Your task to perform on an android device: turn on location history Image 0: 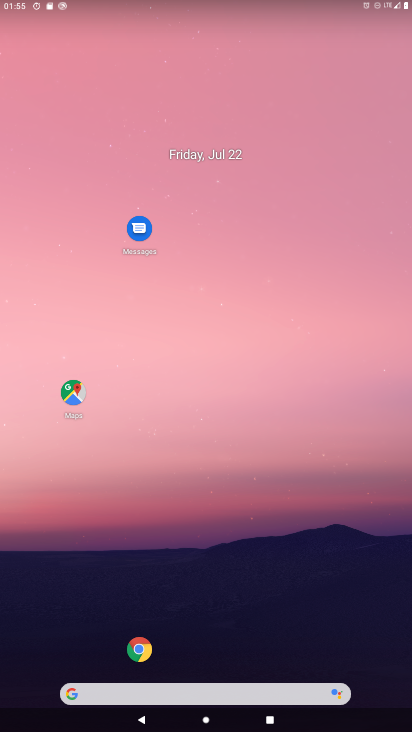
Step 0: drag from (70, 606) to (222, 204)
Your task to perform on an android device: turn on location history Image 1: 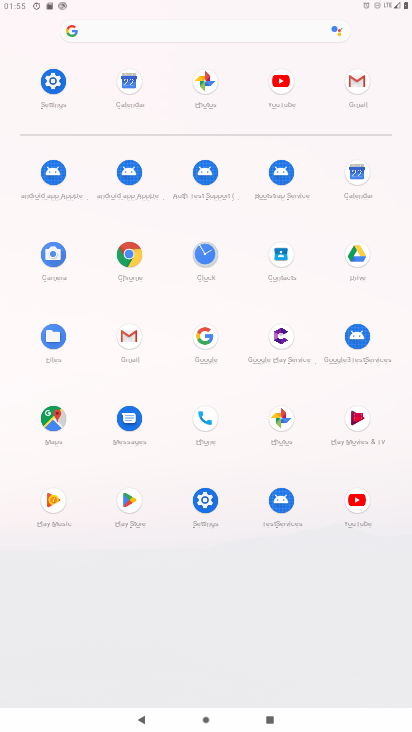
Step 1: click (126, 263)
Your task to perform on an android device: turn on location history Image 2: 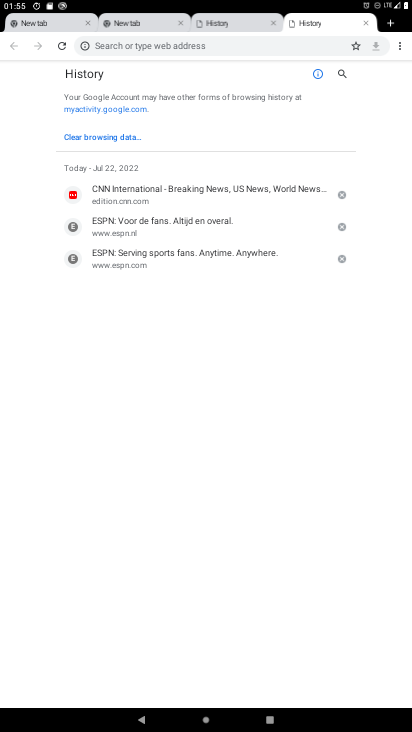
Step 2: click (405, 45)
Your task to perform on an android device: turn on location history Image 3: 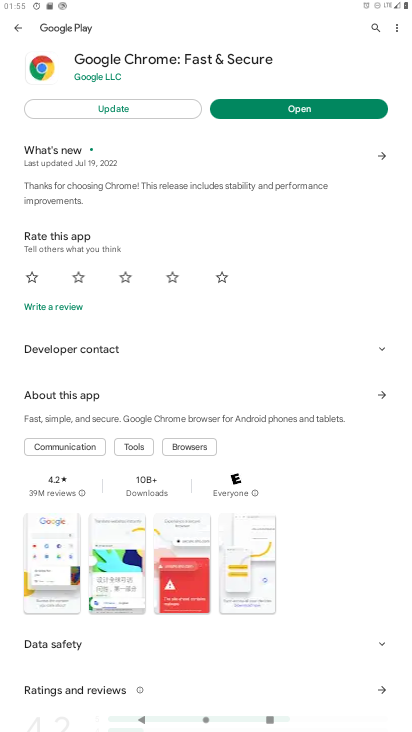
Step 3: press home button
Your task to perform on an android device: turn on location history Image 4: 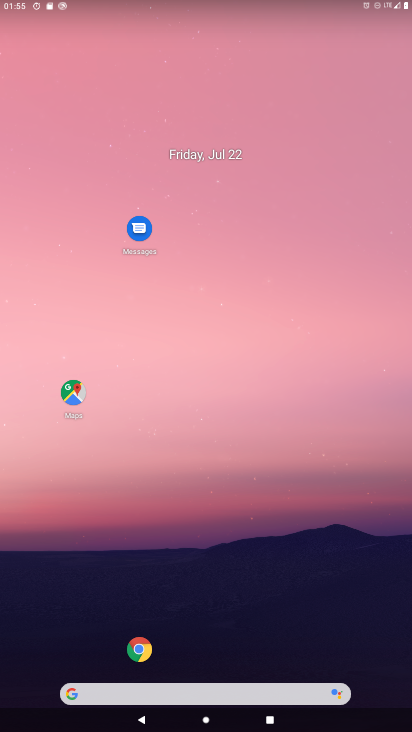
Step 4: drag from (73, 609) to (195, 118)
Your task to perform on an android device: turn on location history Image 5: 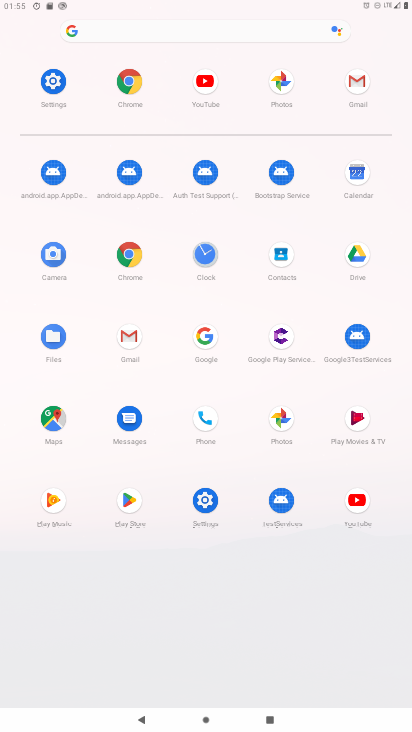
Step 5: click (202, 492)
Your task to perform on an android device: turn on location history Image 6: 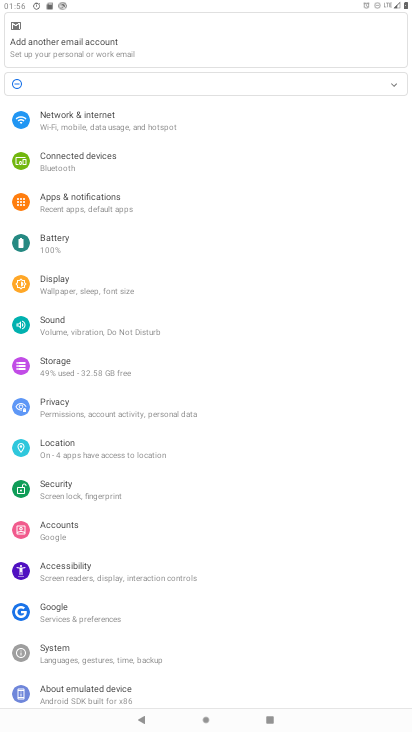
Step 6: click (71, 448)
Your task to perform on an android device: turn on location history Image 7: 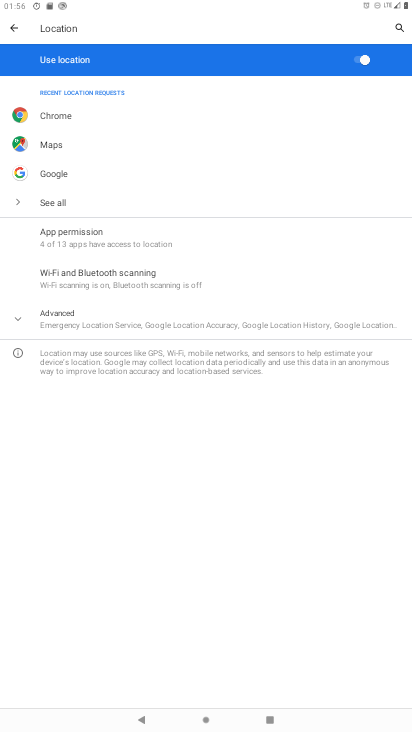
Step 7: task complete